Your task to perform on an android device: install app "Grab" Image 0: 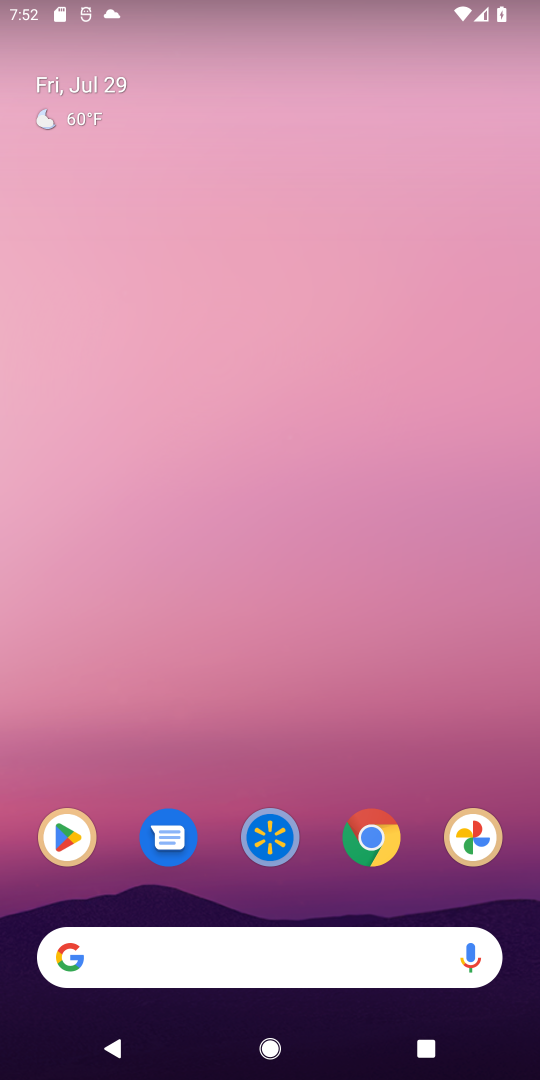
Step 0: click (59, 834)
Your task to perform on an android device: install app "Grab" Image 1: 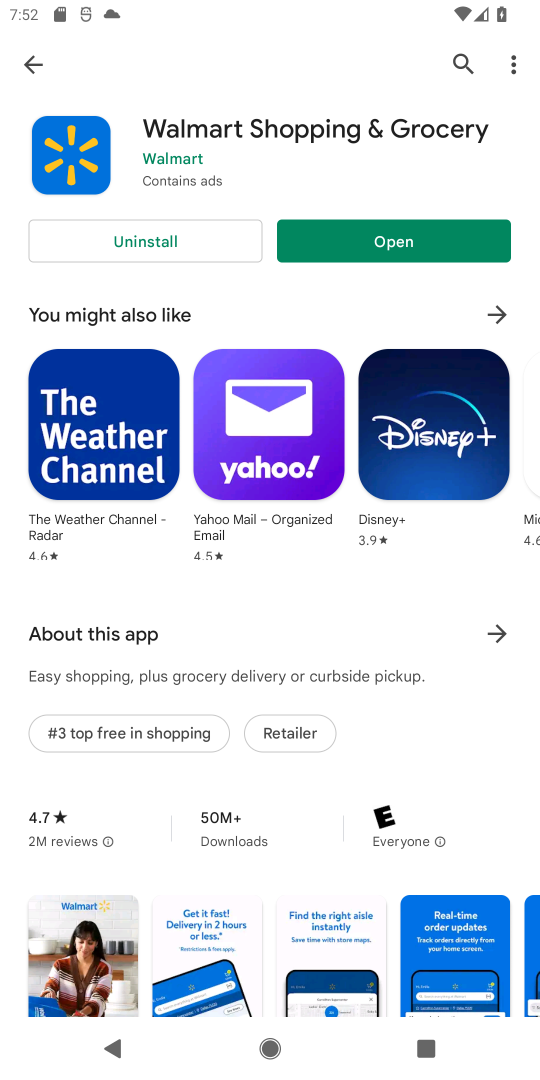
Step 1: click (466, 52)
Your task to perform on an android device: install app "Grab" Image 2: 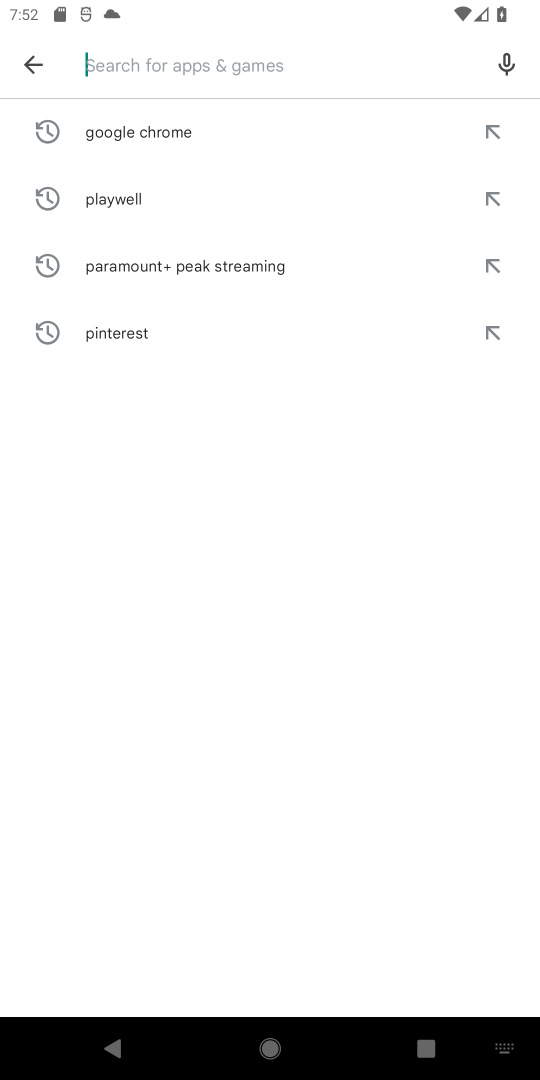
Step 2: type "grab"
Your task to perform on an android device: install app "Grab" Image 3: 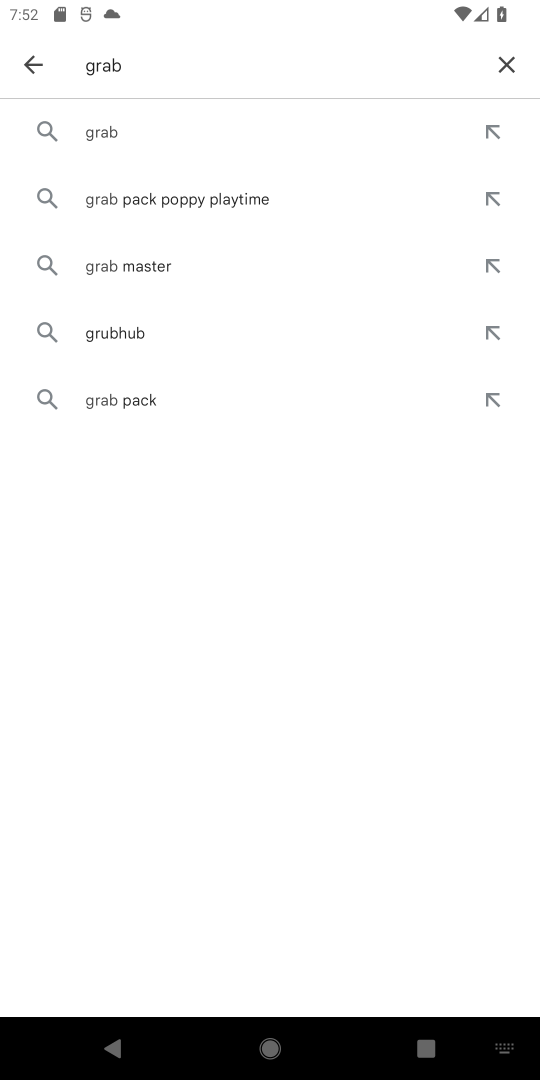
Step 3: click (94, 120)
Your task to perform on an android device: install app "Grab" Image 4: 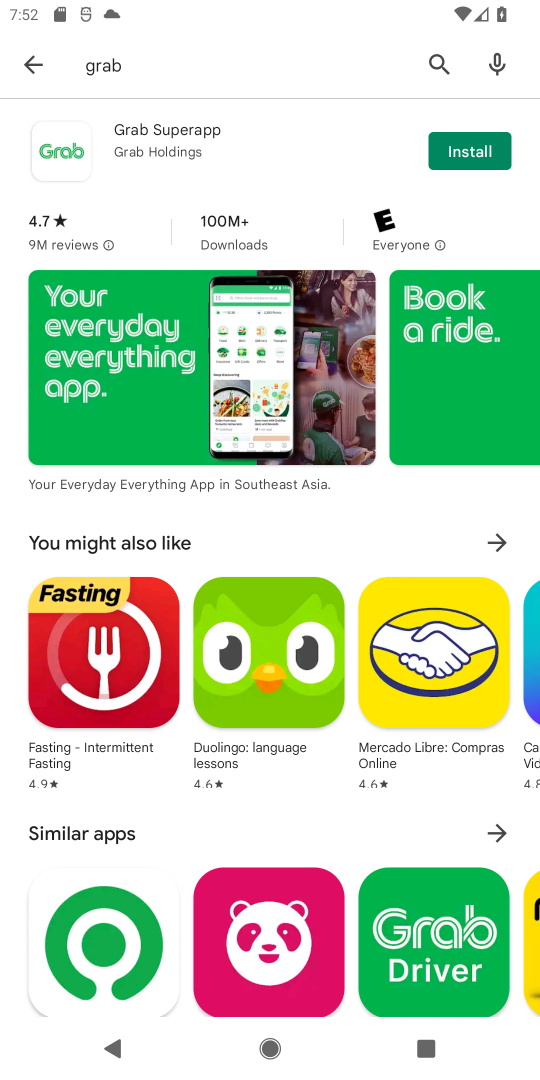
Step 4: click (141, 132)
Your task to perform on an android device: install app "Grab" Image 5: 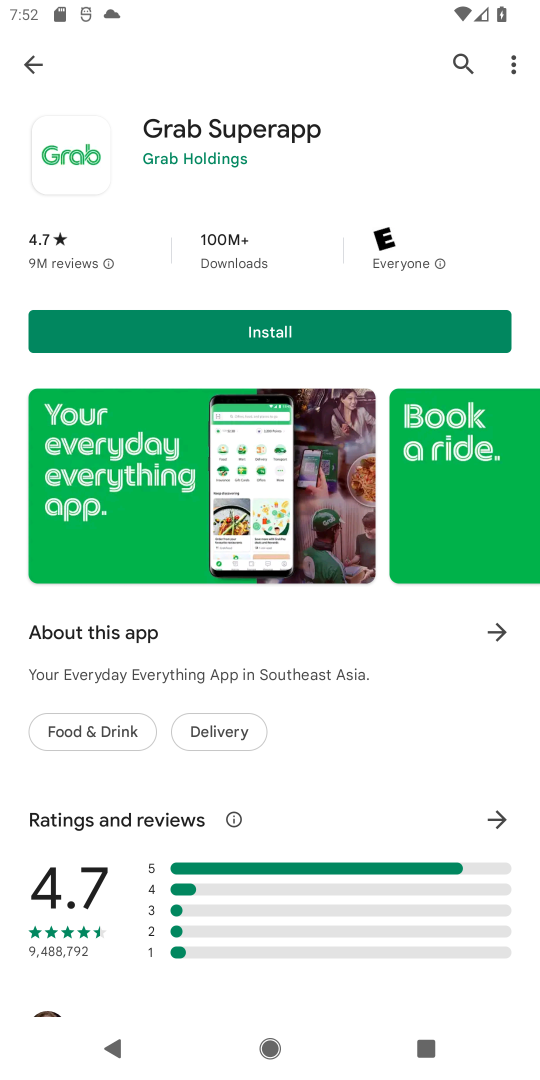
Step 5: click (308, 330)
Your task to perform on an android device: install app "Grab" Image 6: 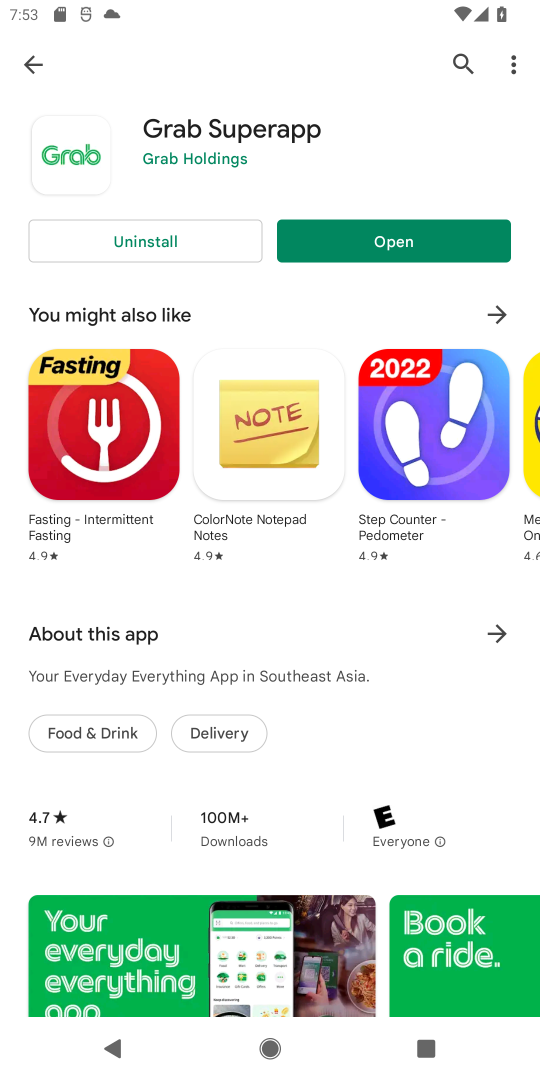
Step 6: task complete